Your task to perform on an android device: open a bookmark in the chrome app Image 0: 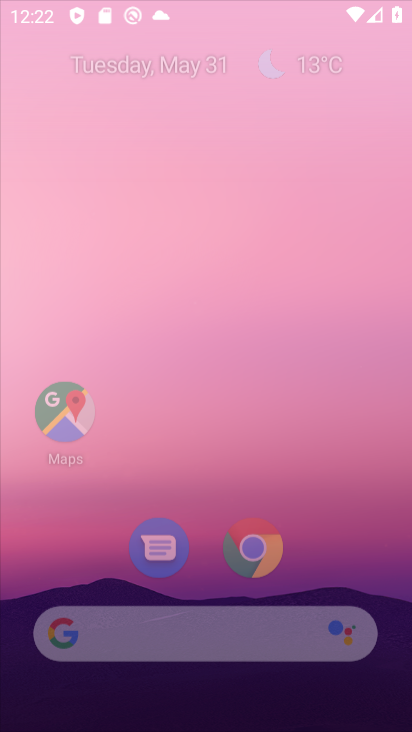
Step 0: drag from (216, 539) to (224, 144)
Your task to perform on an android device: open a bookmark in the chrome app Image 1: 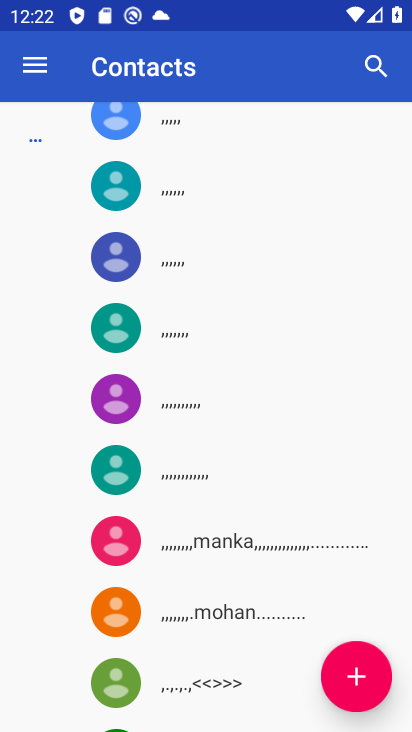
Step 1: press home button
Your task to perform on an android device: open a bookmark in the chrome app Image 2: 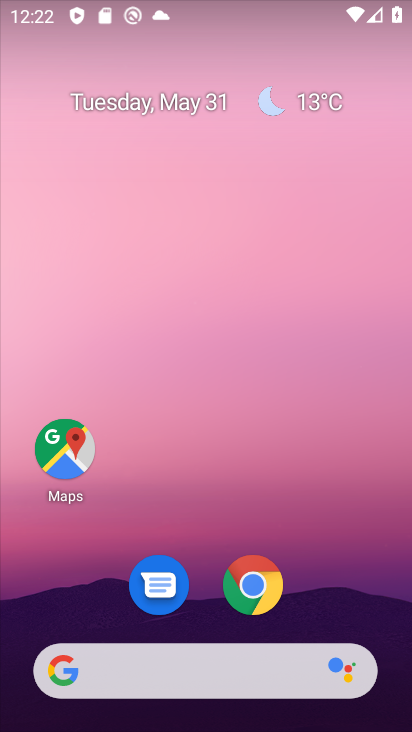
Step 2: click (249, 599)
Your task to perform on an android device: open a bookmark in the chrome app Image 3: 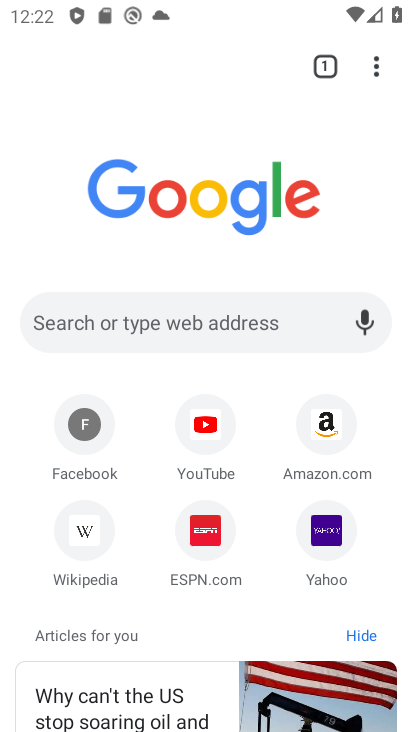
Step 3: click (376, 68)
Your task to perform on an android device: open a bookmark in the chrome app Image 4: 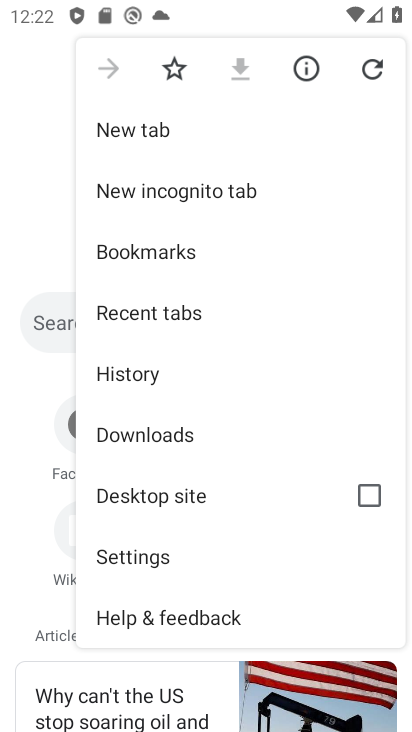
Step 4: click (202, 251)
Your task to perform on an android device: open a bookmark in the chrome app Image 5: 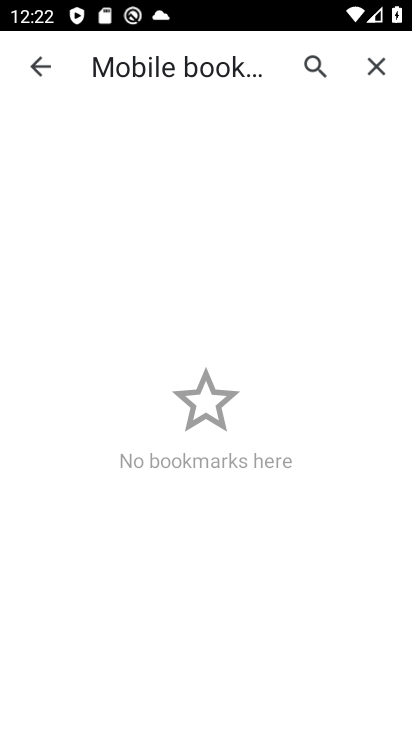
Step 5: task complete